Your task to perform on an android device: toggle show notifications on the lock screen Image 0: 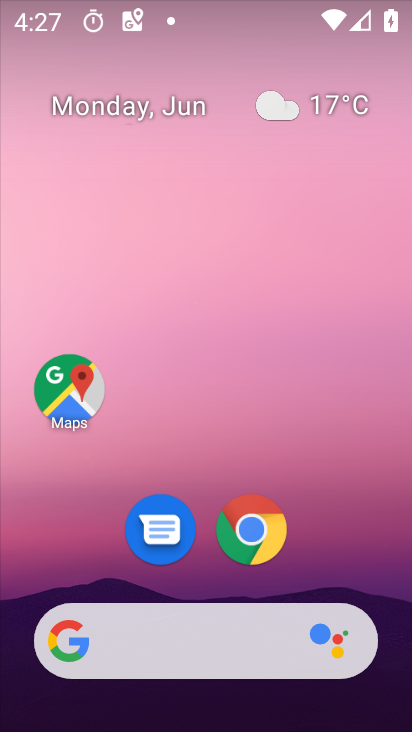
Step 0: drag from (352, 561) to (237, 23)
Your task to perform on an android device: toggle show notifications on the lock screen Image 1: 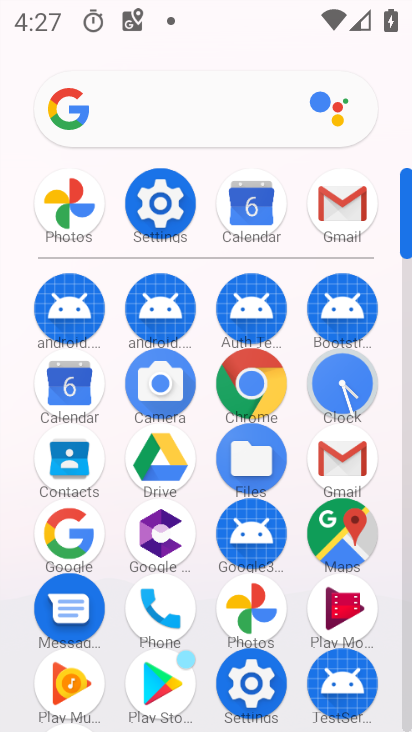
Step 1: click (165, 204)
Your task to perform on an android device: toggle show notifications on the lock screen Image 2: 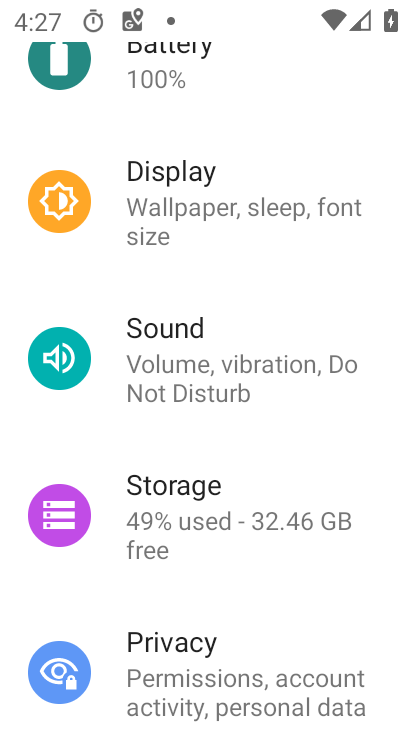
Step 2: drag from (281, 161) to (239, 492)
Your task to perform on an android device: toggle show notifications on the lock screen Image 3: 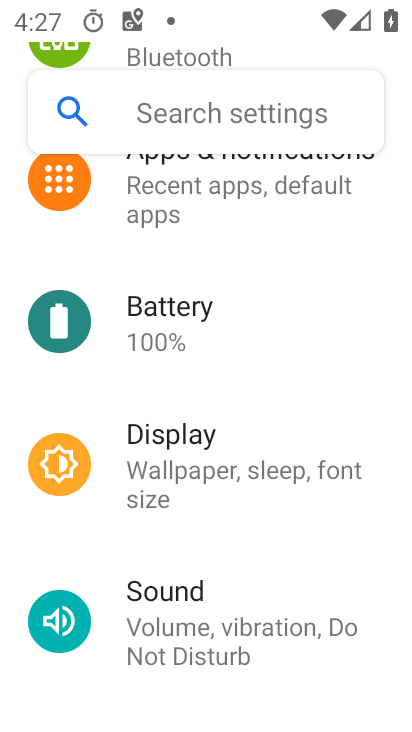
Step 3: drag from (289, 317) to (291, 599)
Your task to perform on an android device: toggle show notifications on the lock screen Image 4: 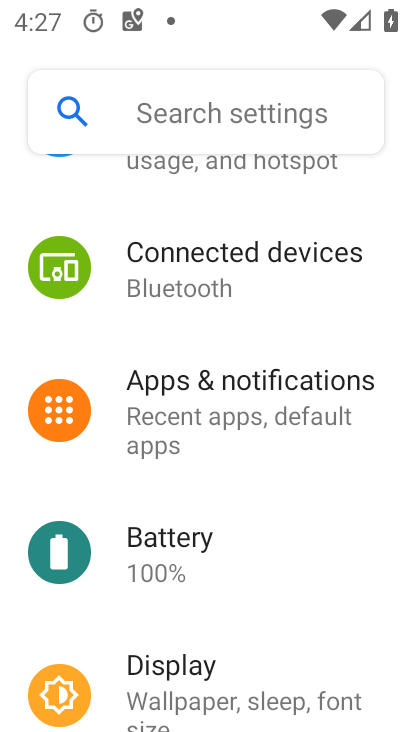
Step 4: click (295, 415)
Your task to perform on an android device: toggle show notifications on the lock screen Image 5: 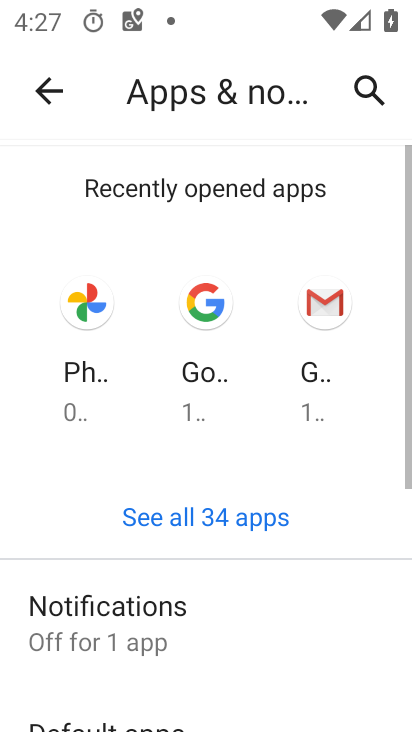
Step 5: click (99, 609)
Your task to perform on an android device: toggle show notifications on the lock screen Image 6: 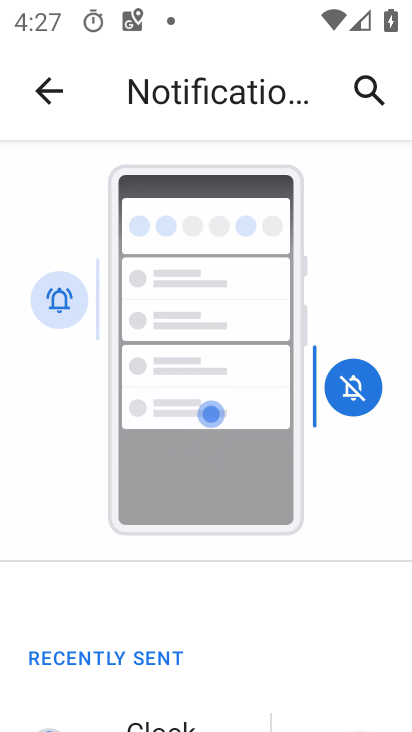
Step 6: drag from (244, 642) to (279, 190)
Your task to perform on an android device: toggle show notifications on the lock screen Image 7: 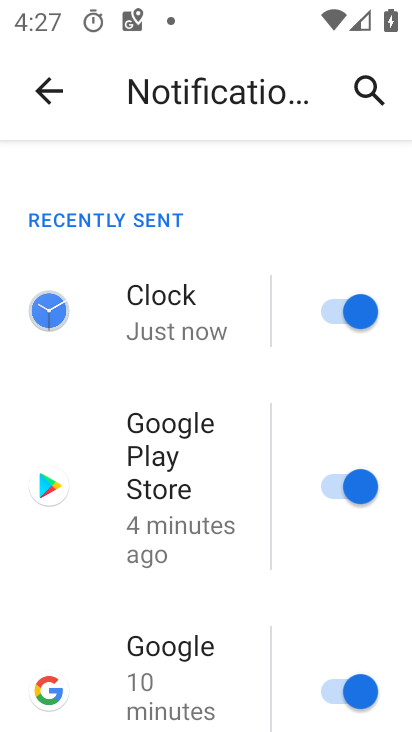
Step 7: drag from (217, 585) to (317, 181)
Your task to perform on an android device: toggle show notifications on the lock screen Image 8: 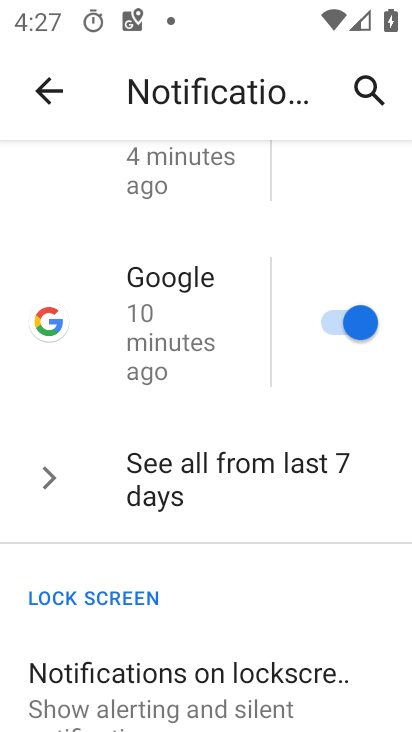
Step 8: drag from (224, 633) to (299, 410)
Your task to perform on an android device: toggle show notifications on the lock screen Image 9: 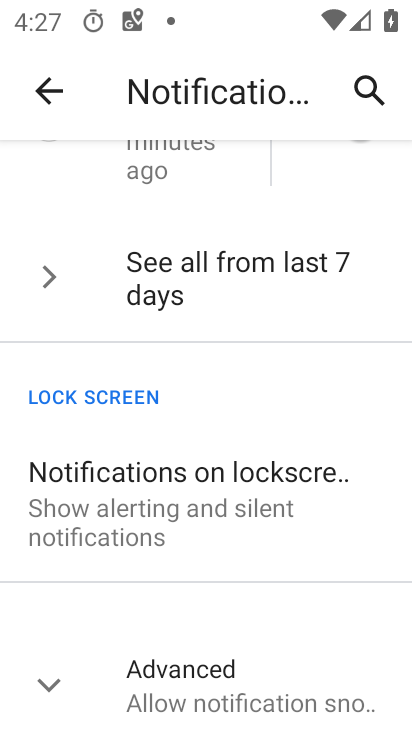
Step 9: click (252, 479)
Your task to perform on an android device: toggle show notifications on the lock screen Image 10: 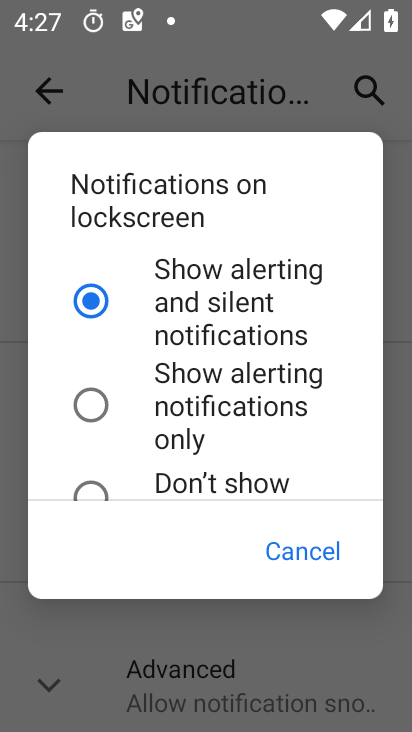
Step 10: click (100, 493)
Your task to perform on an android device: toggle show notifications on the lock screen Image 11: 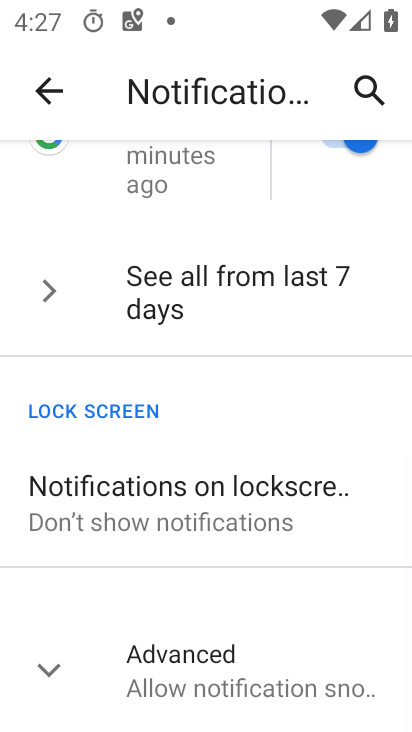
Step 11: task complete